Your task to perform on an android device: check data usage Image 0: 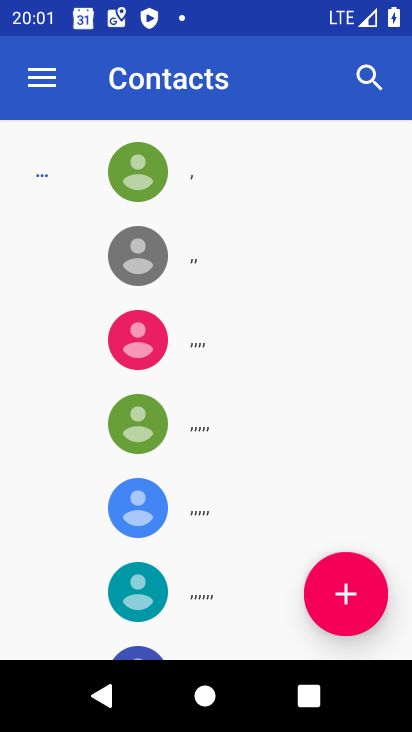
Step 0: press home button
Your task to perform on an android device: check data usage Image 1: 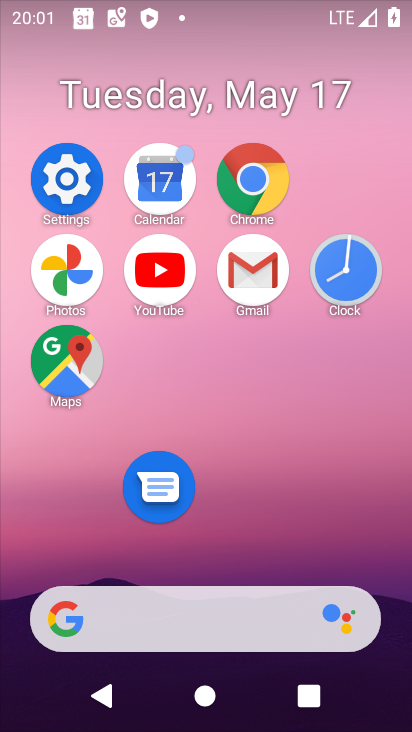
Step 1: click (53, 182)
Your task to perform on an android device: check data usage Image 2: 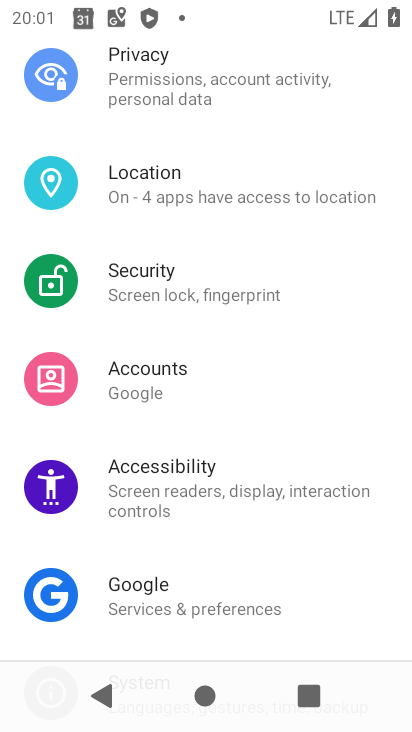
Step 2: drag from (345, 174) to (304, 457)
Your task to perform on an android device: check data usage Image 3: 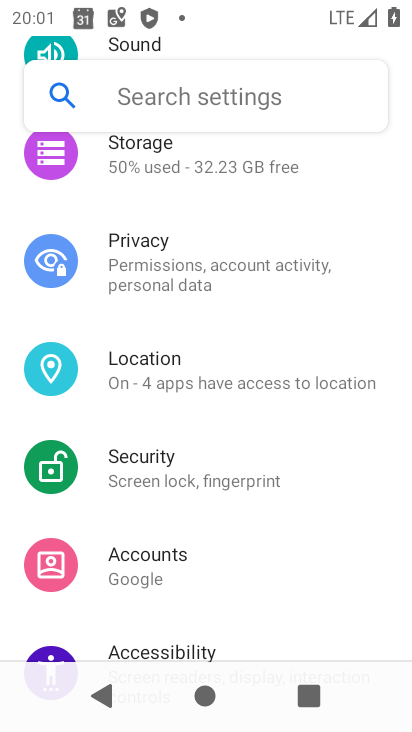
Step 3: drag from (290, 256) to (272, 460)
Your task to perform on an android device: check data usage Image 4: 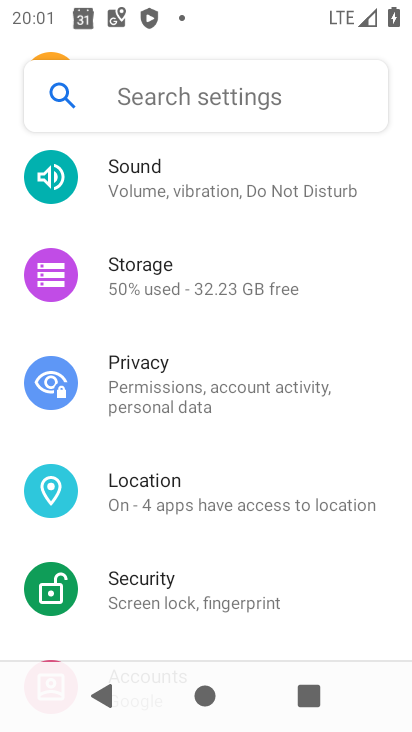
Step 4: drag from (315, 216) to (296, 517)
Your task to perform on an android device: check data usage Image 5: 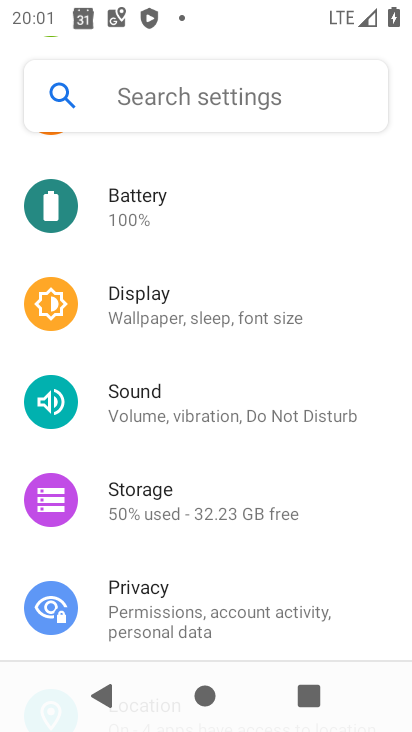
Step 5: drag from (316, 165) to (320, 530)
Your task to perform on an android device: check data usage Image 6: 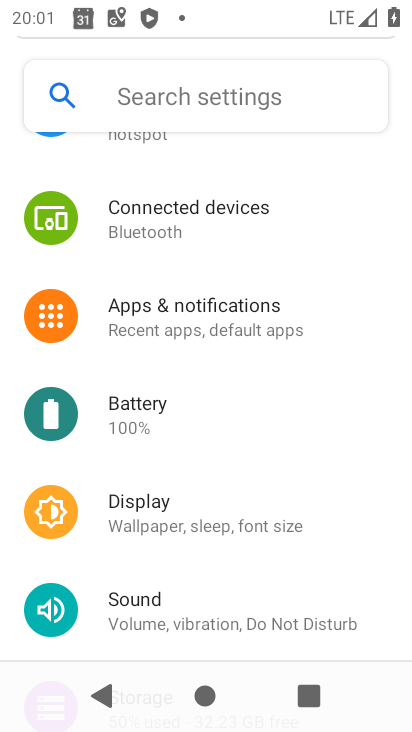
Step 6: drag from (356, 132) to (354, 447)
Your task to perform on an android device: check data usage Image 7: 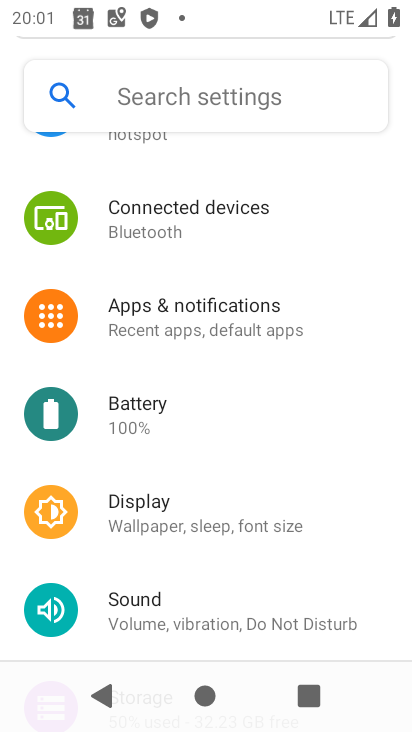
Step 7: drag from (325, 176) to (338, 532)
Your task to perform on an android device: check data usage Image 8: 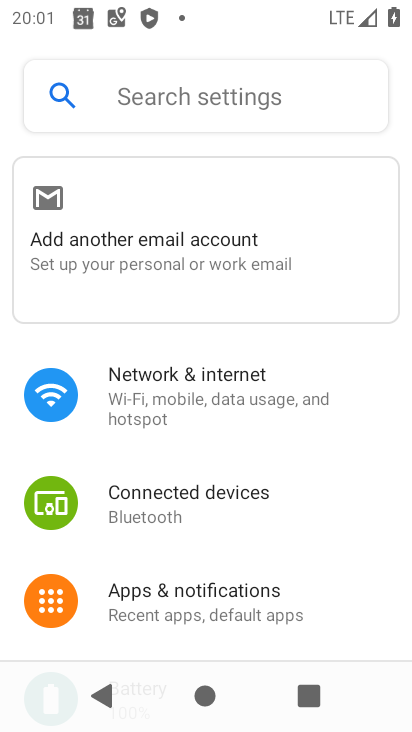
Step 8: click (281, 403)
Your task to perform on an android device: check data usage Image 9: 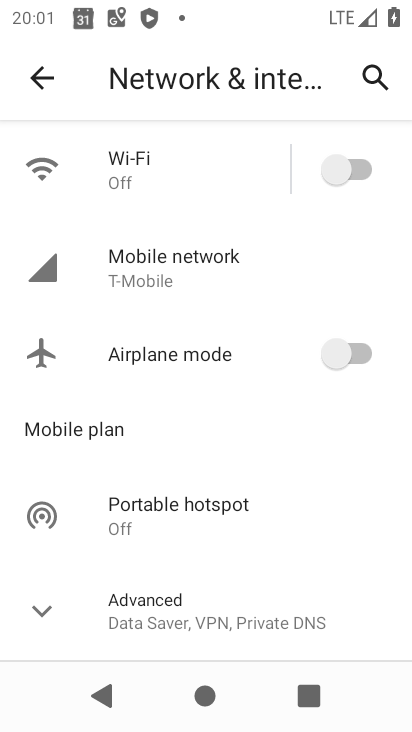
Step 9: click (210, 271)
Your task to perform on an android device: check data usage Image 10: 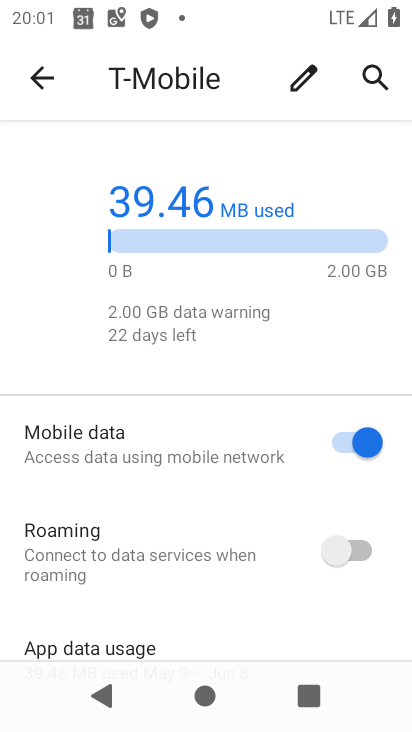
Step 10: task complete